Your task to perform on an android device: Open internet settings Image 0: 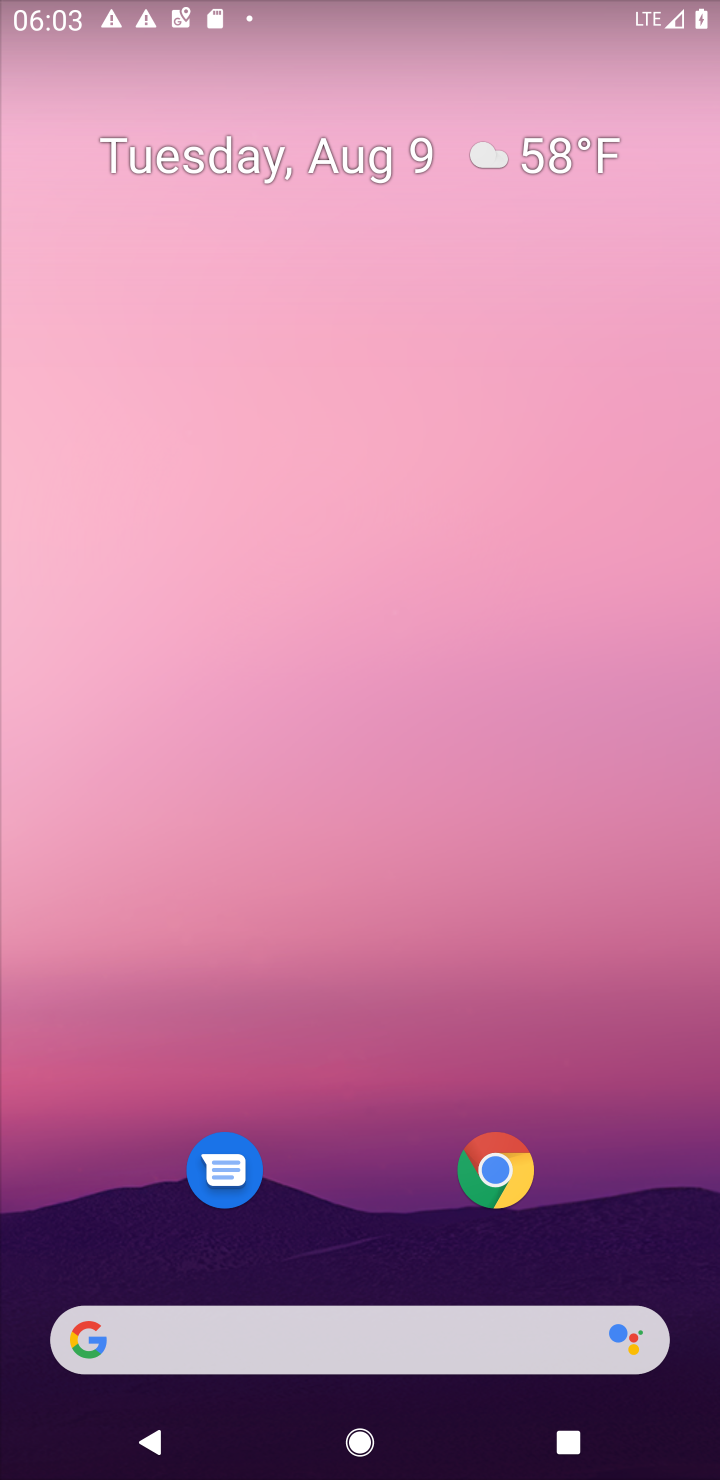
Step 0: drag from (319, 1249) to (333, 4)
Your task to perform on an android device: Open internet settings Image 1: 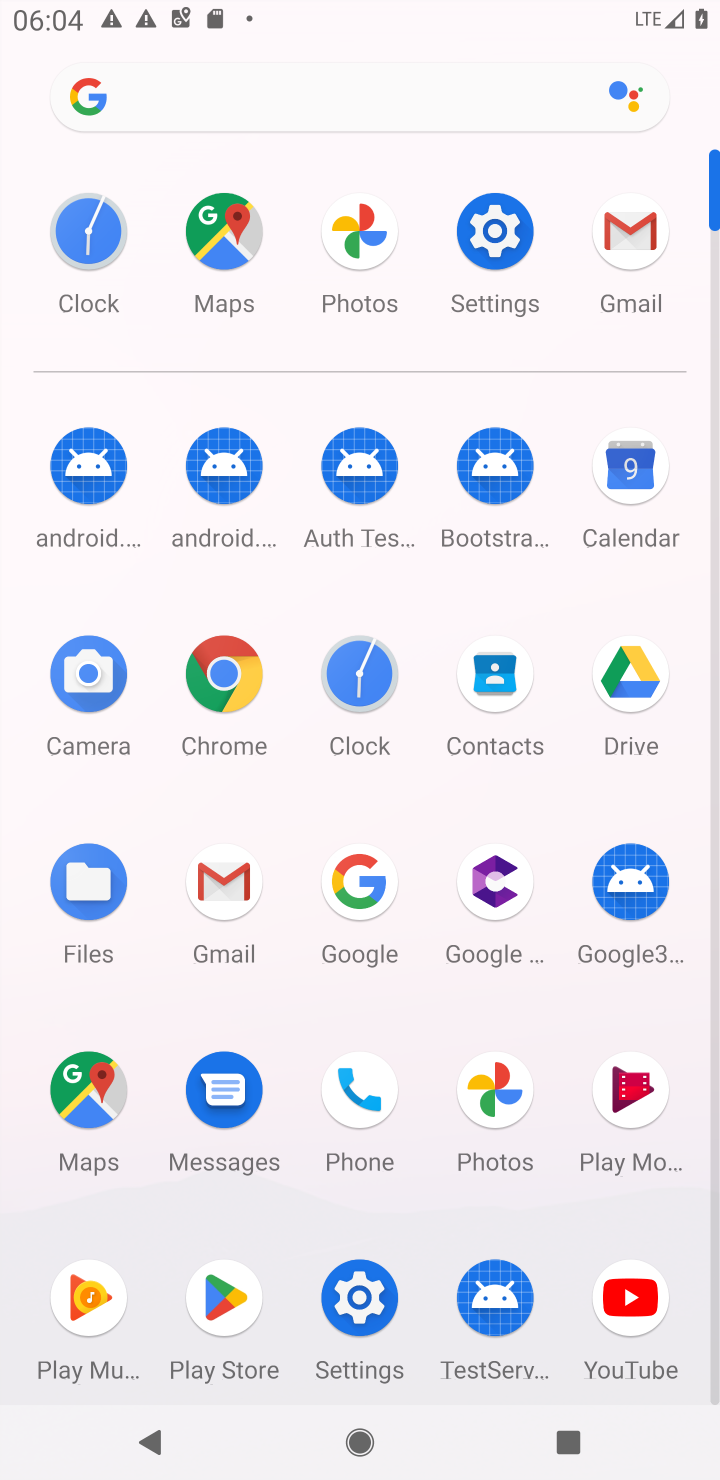
Step 1: click (497, 239)
Your task to perform on an android device: Open internet settings Image 2: 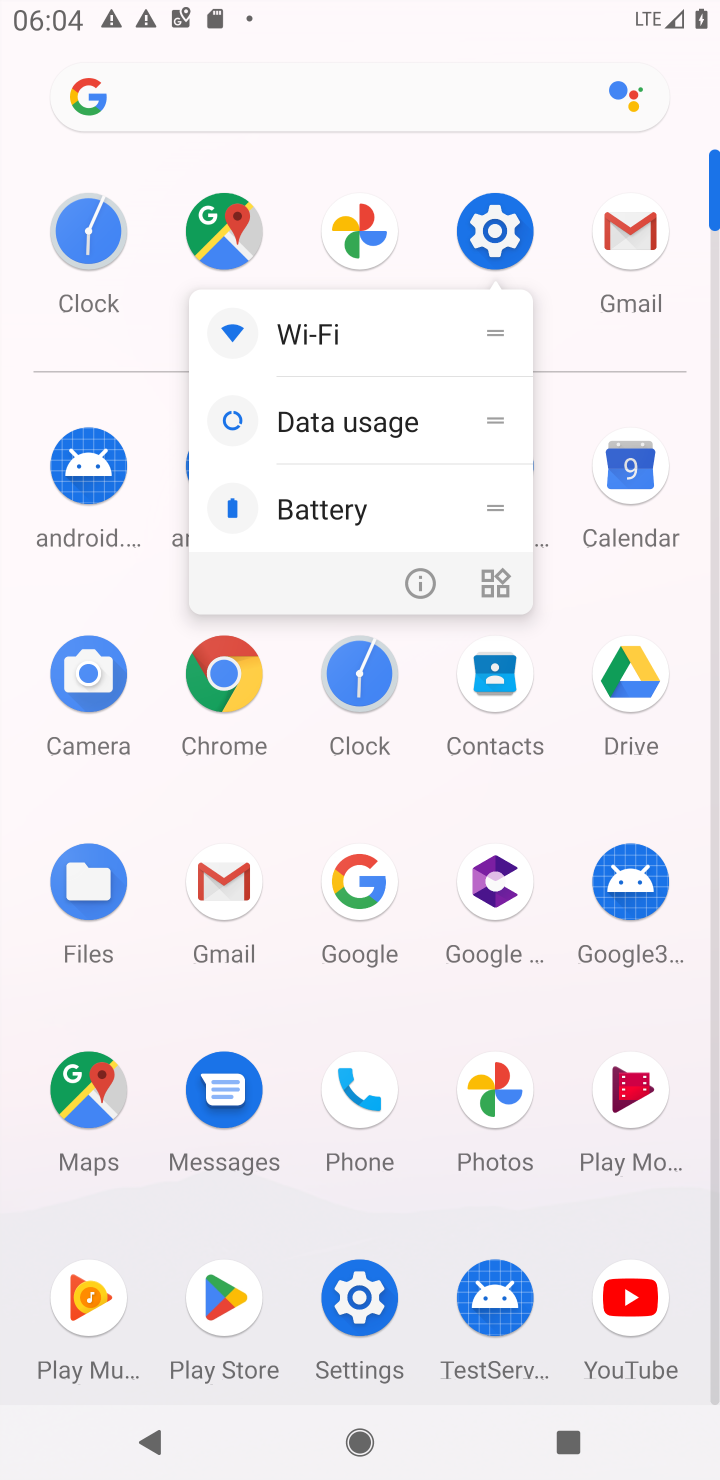
Step 2: click (499, 250)
Your task to perform on an android device: Open internet settings Image 3: 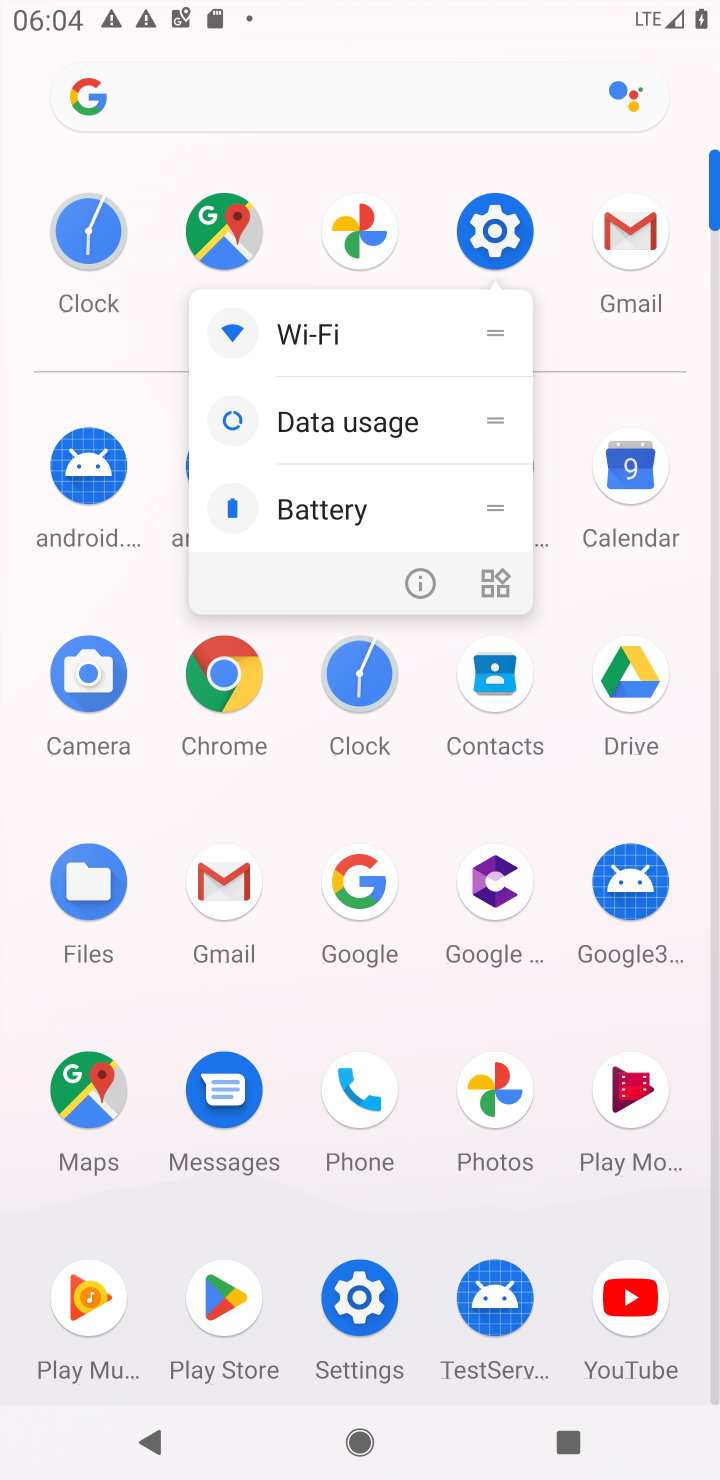
Step 3: click (496, 220)
Your task to perform on an android device: Open internet settings Image 4: 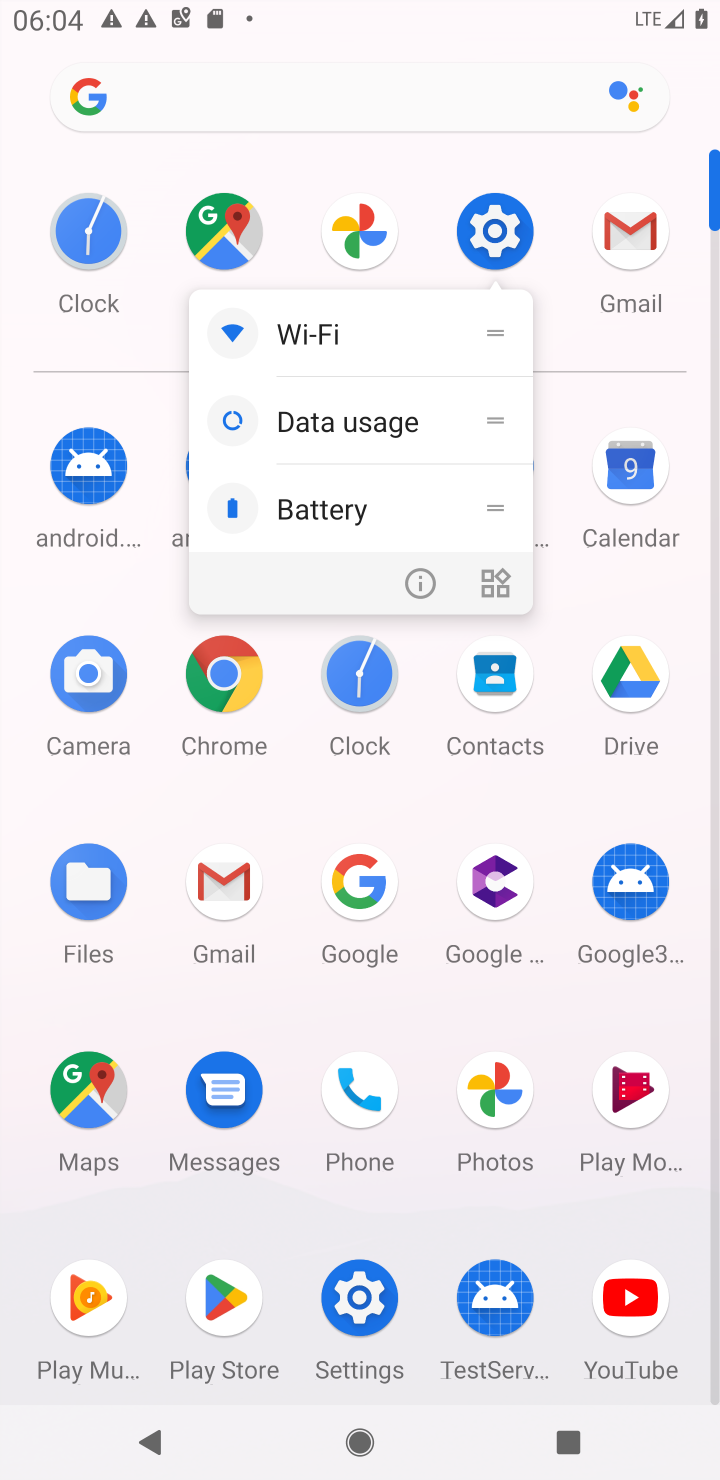
Step 4: click (496, 220)
Your task to perform on an android device: Open internet settings Image 5: 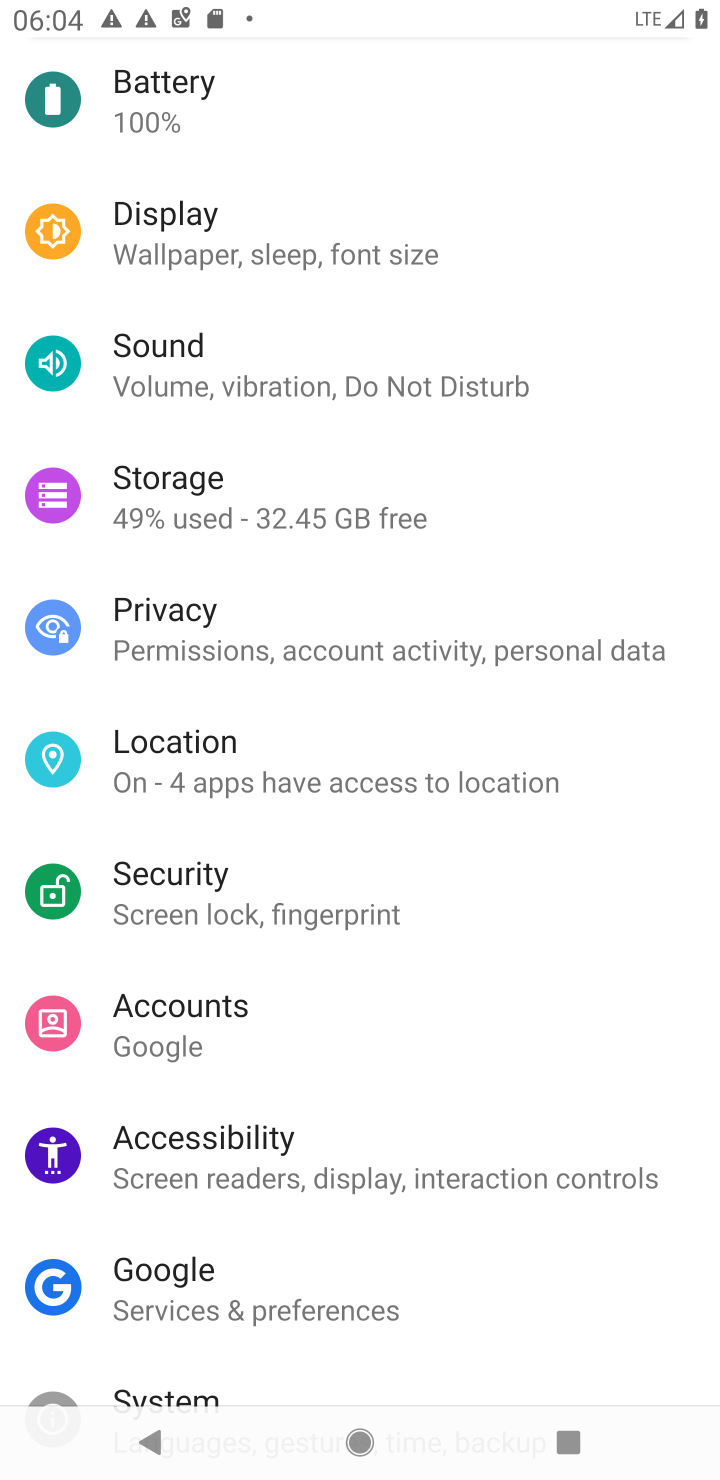
Step 5: drag from (608, 453) to (271, 1465)
Your task to perform on an android device: Open internet settings Image 6: 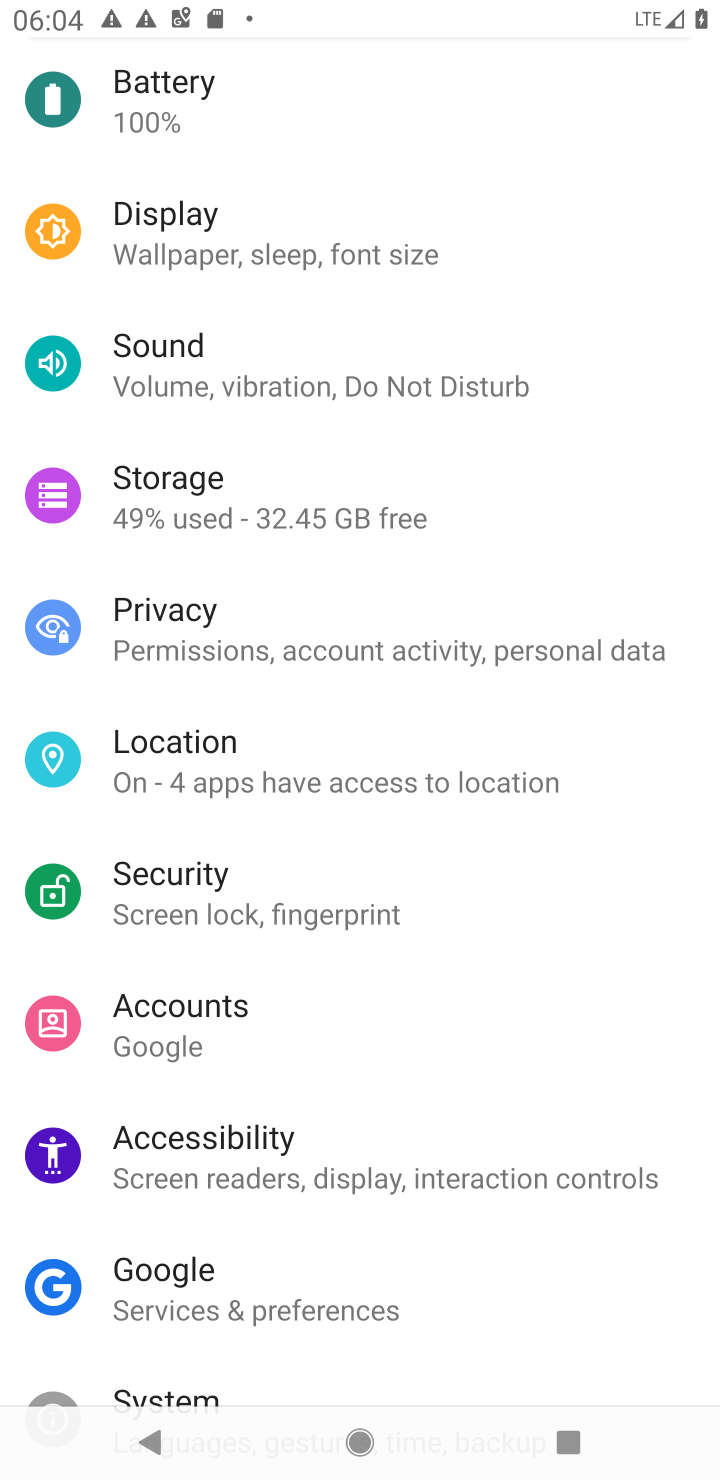
Step 6: drag from (425, 143) to (393, 1323)
Your task to perform on an android device: Open internet settings Image 7: 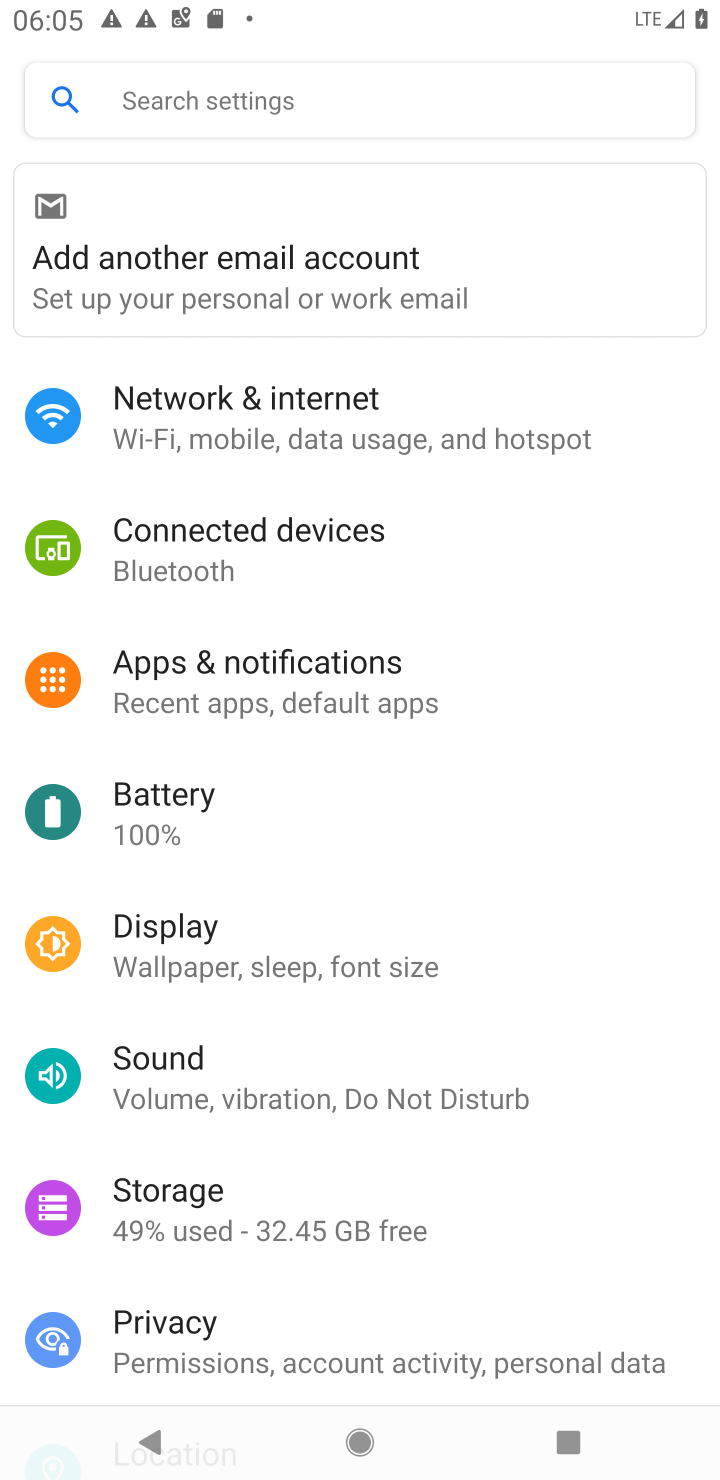
Step 7: click (272, 419)
Your task to perform on an android device: Open internet settings Image 8: 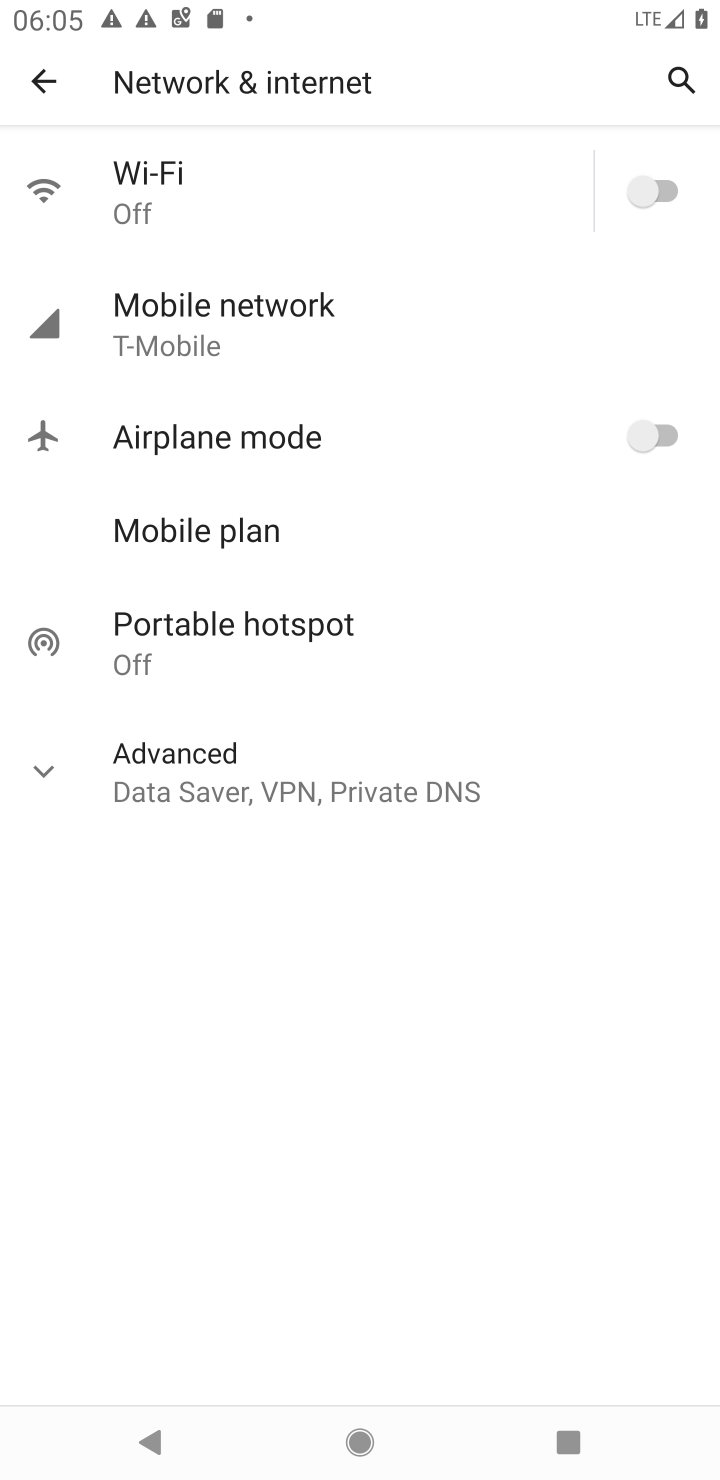
Step 8: task complete